Your task to perform on an android device: Go to Android settings Image 0: 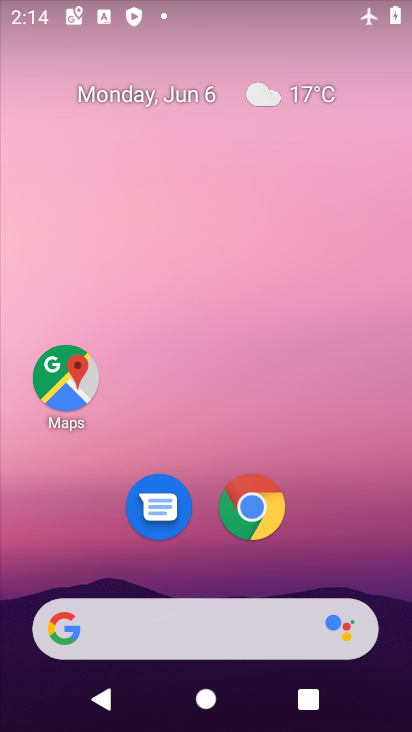
Step 0: drag from (230, 437) to (258, 13)
Your task to perform on an android device: Go to Android settings Image 1: 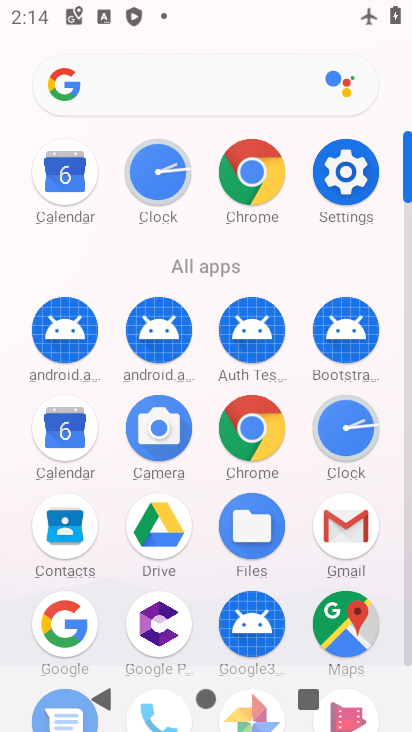
Step 1: click (339, 182)
Your task to perform on an android device: Go to Android settings Image 2: 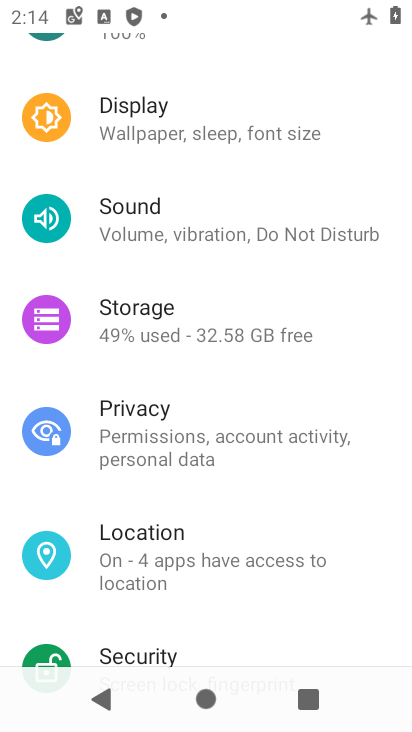
Step 2: drag from (267, 506) to (266, 64)
Your task to perform on an android device: Go to Android settings Image 3: 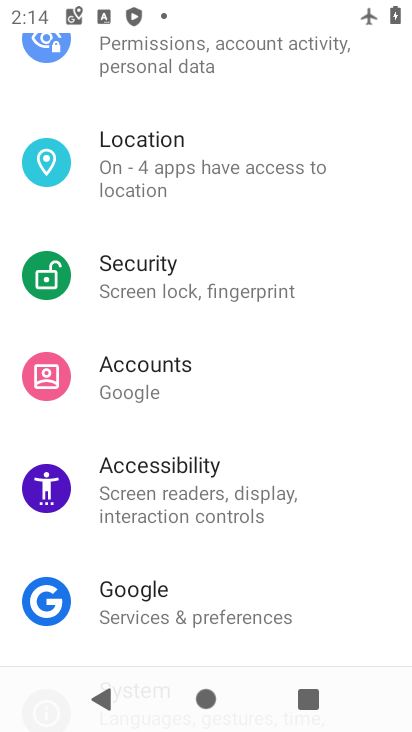
Step 3: drag from (277, 434) to (267, 78)
Your task to perform on an android device: Go to Android settings Image 4: 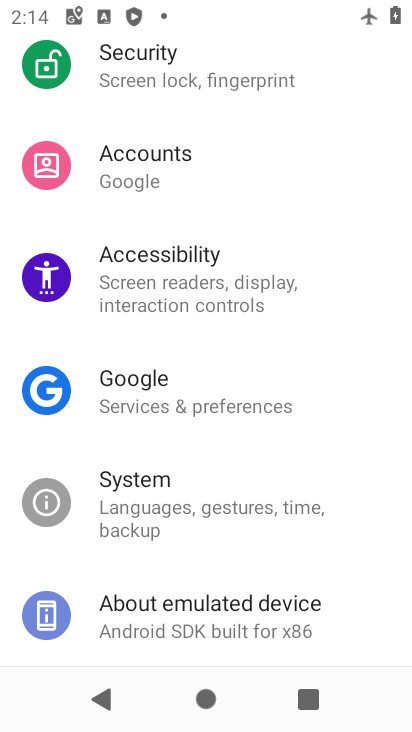
Step 4: click (222, 616)
Your task to perform on an android device: Go to Android settings Image 5: 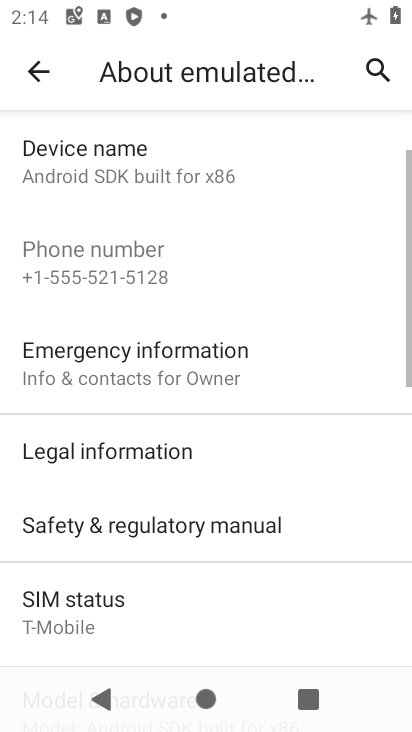
Step 5: task complete